Your task to perform on an android device: Open the Play Movies app and select the watchlist tab. Image 0: 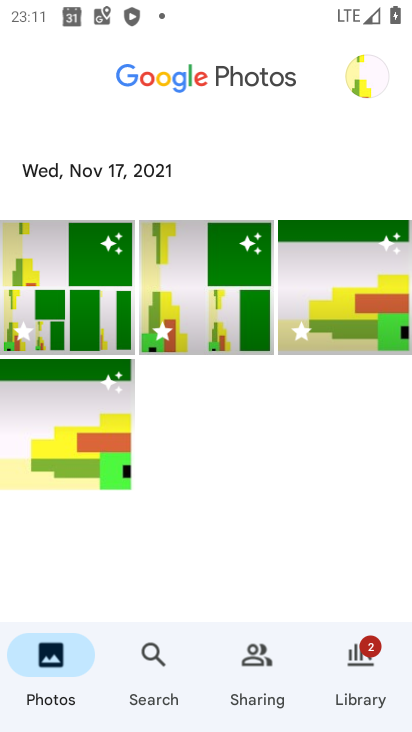
Step 0: press home button
Your task to perform on an android device: Open the Play Movies app and select the watchlist tab. Image 1: 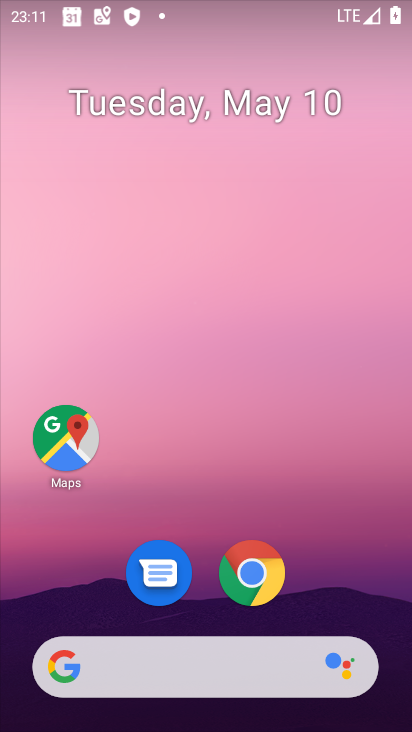
Step 1: drag from (333, 561) to (190, 67)
Your task to perform on an android device: Open the Play Movies app and select the watchlist tab. Image 2: 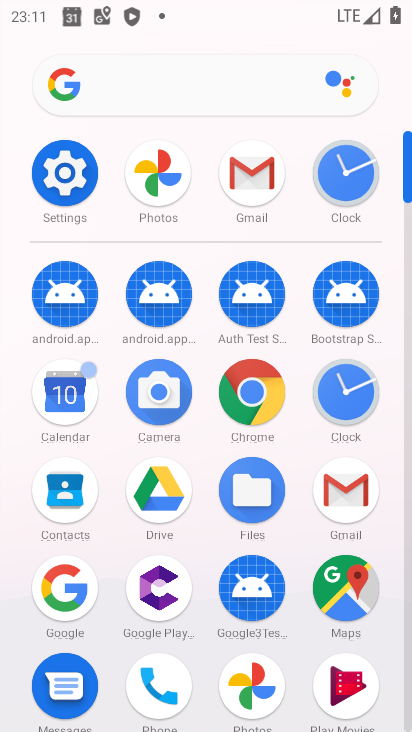
Step 2: click (404, 600)
Your task to perform on an android device: Open the Play Movies app and select the watchlist tab. Image 3: 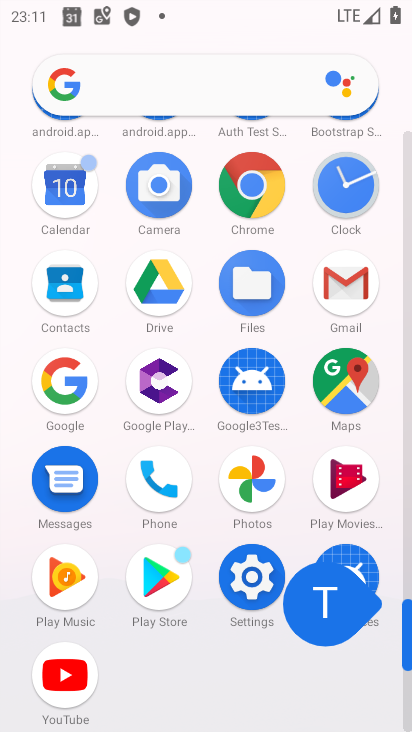
Step 3: click (404, 600)
Your task to perform on an android device: Open the Play Movies app and select the watchlist tab. Image 4: 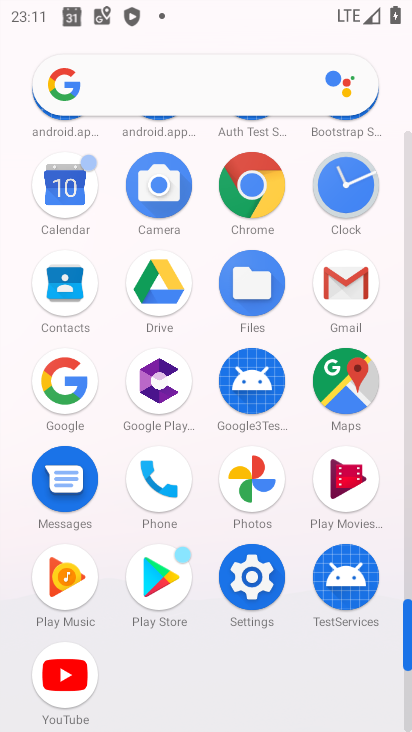
Step 4: click (341, 479)
Your task to perform on an android device: Open the Play Movies app and select the watchlist tab. Image 5: 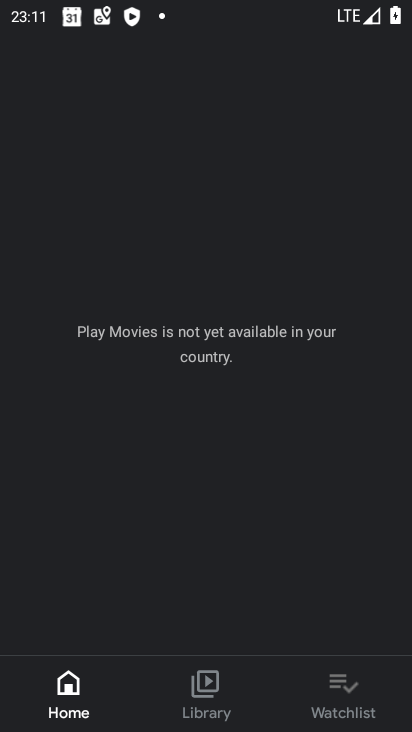
Step 5: click (332, 697)
Your task to perform on an android device: Open the Play Movies app and select the watchlist tab. Image 6: 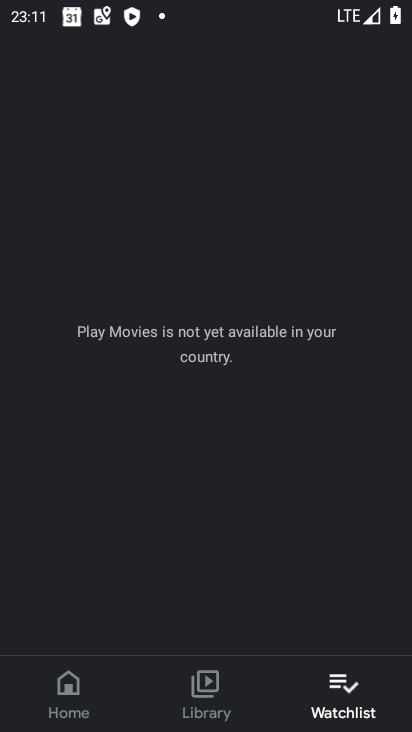
Step 6: task complete